Your task to perform on an android device: Show me the alarms in the clock app Image 0: 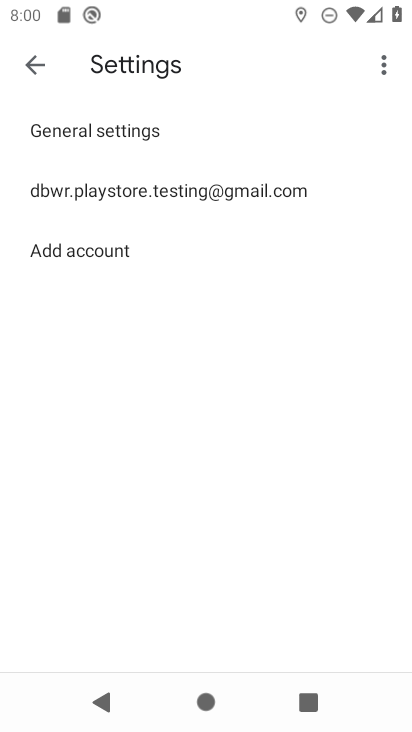
Step 0: press home button
Your task to perform on an android device: Show me the alarms in the clock app Image 1: 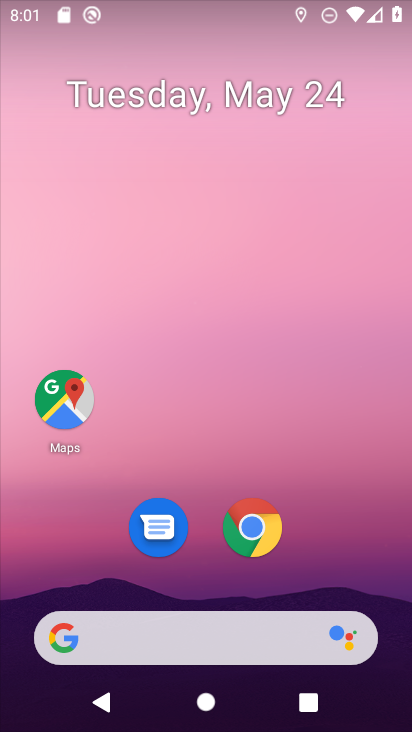
Step 1: drag from (366, 554) to (269, 123)
Your task to perform on an android device: Show me the alarms in the clock app Image 2: 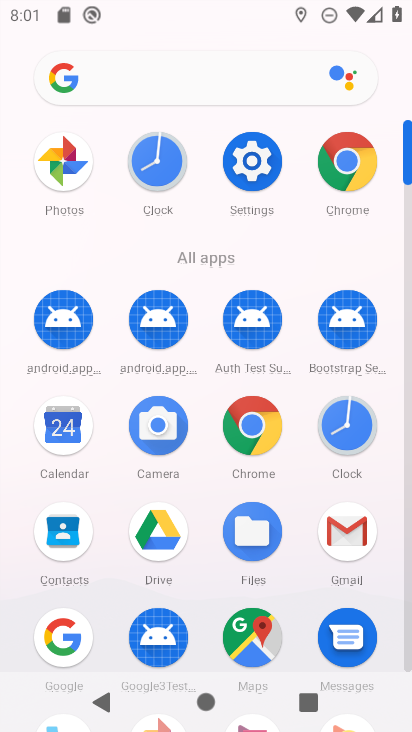
Step 2: click (345, 417)
Your task to perform on an android device: Show me the alarms in the clock app Image 3: 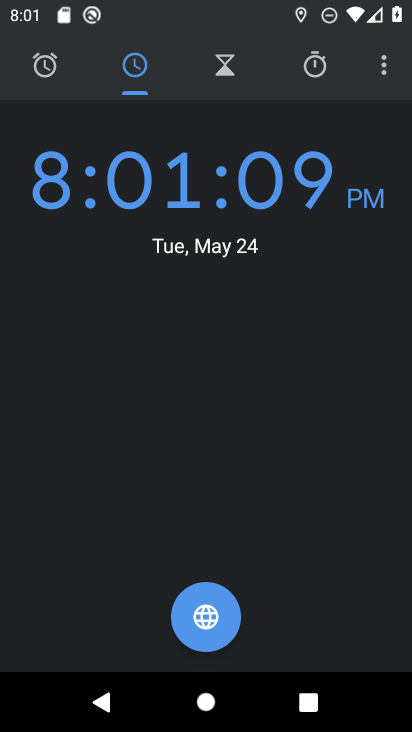
Step 3: click (59, 77)
Your task to perform on an android device: Show me the alarms in the clock app Image 4: 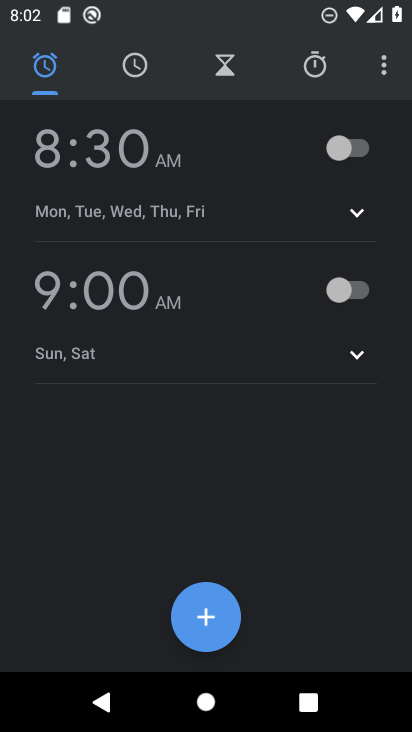
Step 4: task complete